Your task to perform on an android device: open a bookmark in the chrome app Image 0: 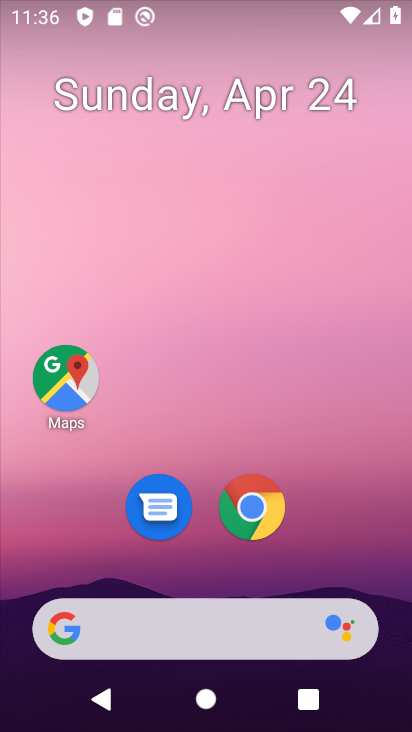
Step 0: drag from (342, 472) to (363, 93)
Your task to perform on an android device: open a bookmark in the chrome app Image 1: 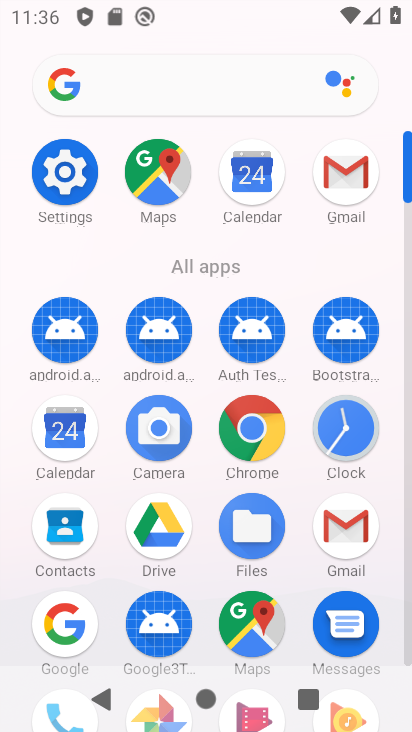
Step 1: click (258, 423)
Your task to perform on an android device: open a bookmark in the chrome app Image 2: 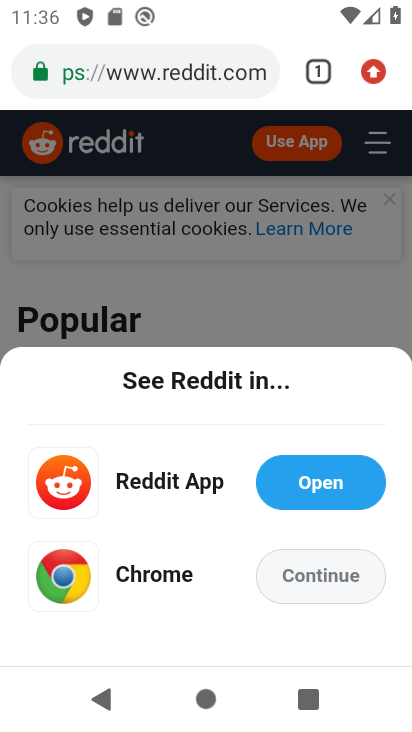
Step 2: task complete